Your task to perform on an android device: turn smart compose on in the gmail app Image 0: 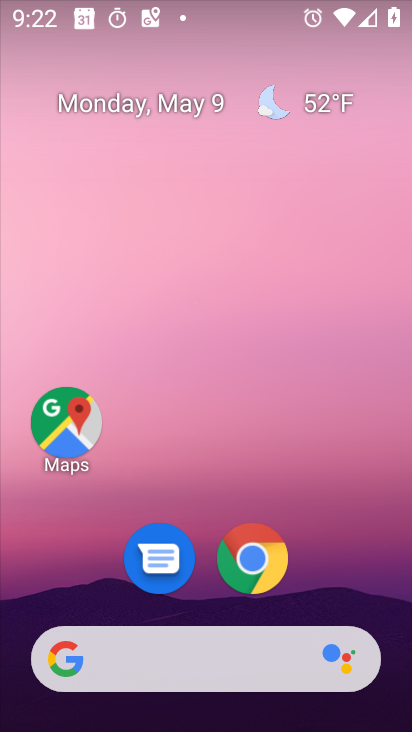
Step 0: drag from (184, 606) to (338, 39)
Your task to perform on an android device: turn smart compose on in the gmail app Image 1: 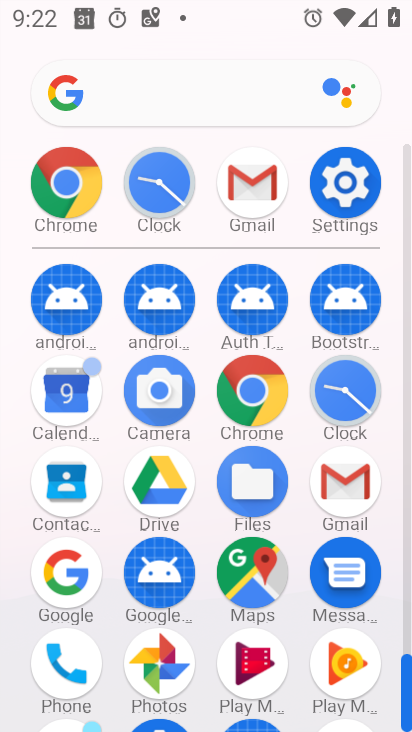
Step 1: click (253, 181)
Your task to perform on an android device: turn smart compose on in the gmail app Image 2: 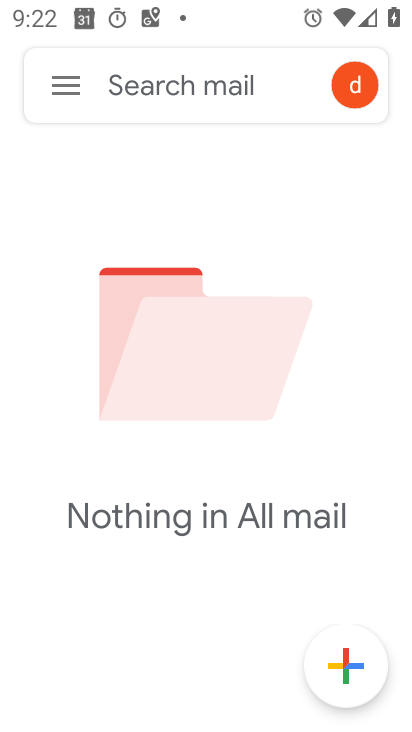
Step 2: click (69, 80)
Your task to perform on an android device: turn smart compose on in the gmail app Image 3: 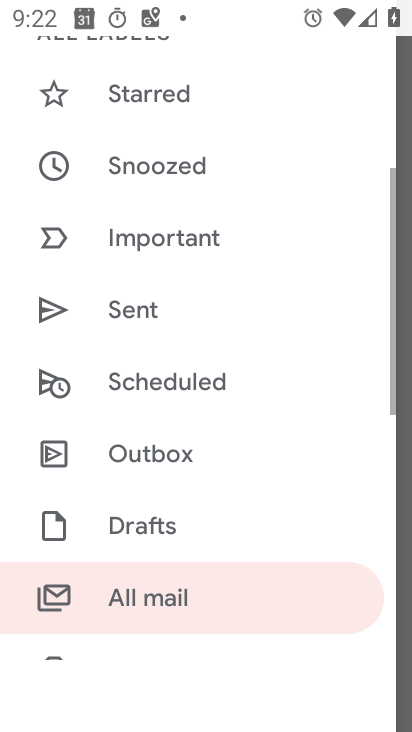
Step 3: drag from (154, 673) to (274, 10)
Your task to perform on an android device: turn smart compose on in the gmail app Image 4: 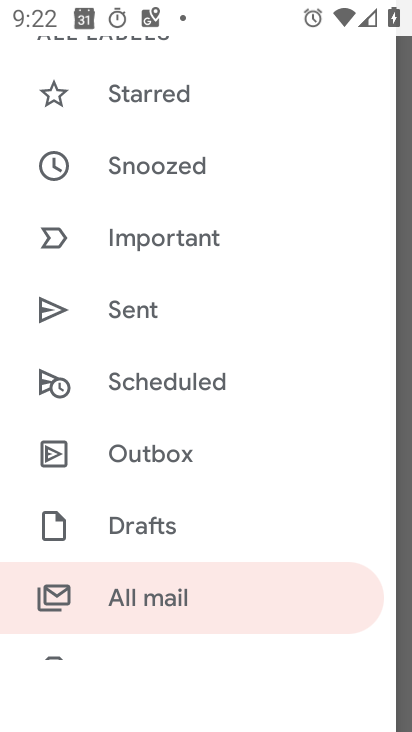
Step 4: drag from (193, 555) to (303, 58)
Your task to perform on an android device: turn smart compose on in the gmail app Image 5: 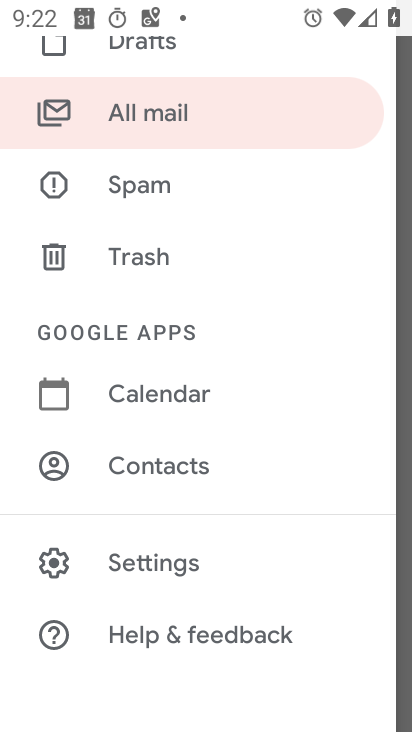
Step 5: click (161, 569)
Your task to perform on an android device: turn smart compose on in the gmail app Image 6: 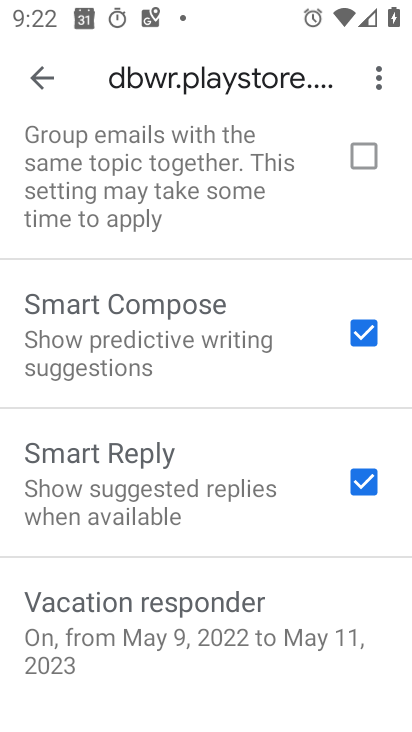
Step 6: task complete